Your task to perform on an android device: open app "Expedia: Hotels, Flights & Car" (install if not already installed) Image 0: 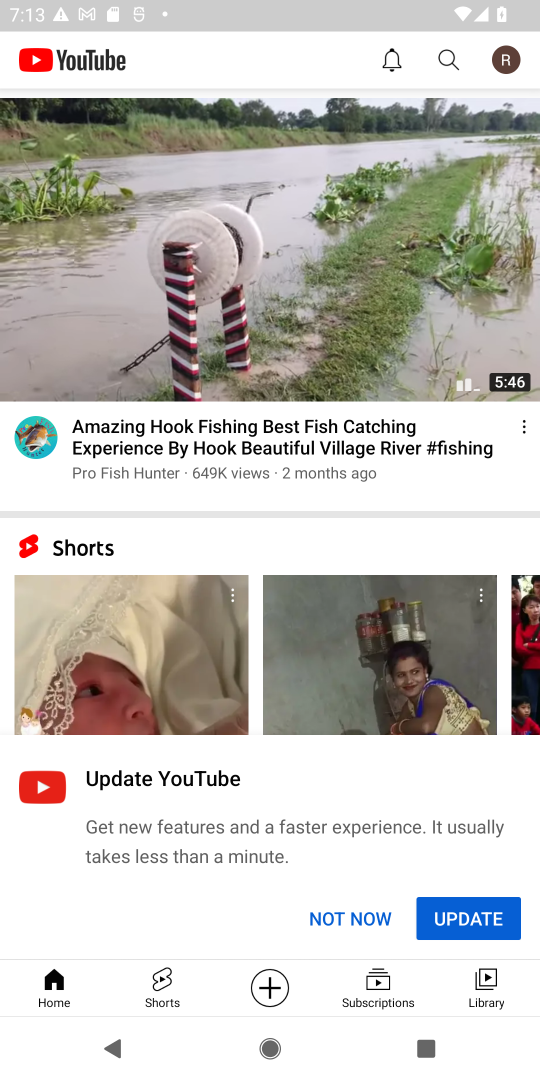
Step 0: press home button
Your task to perform on an android device: open app "Expedia: Hotels, Flights & Car" (install if not already installed) Image 1: 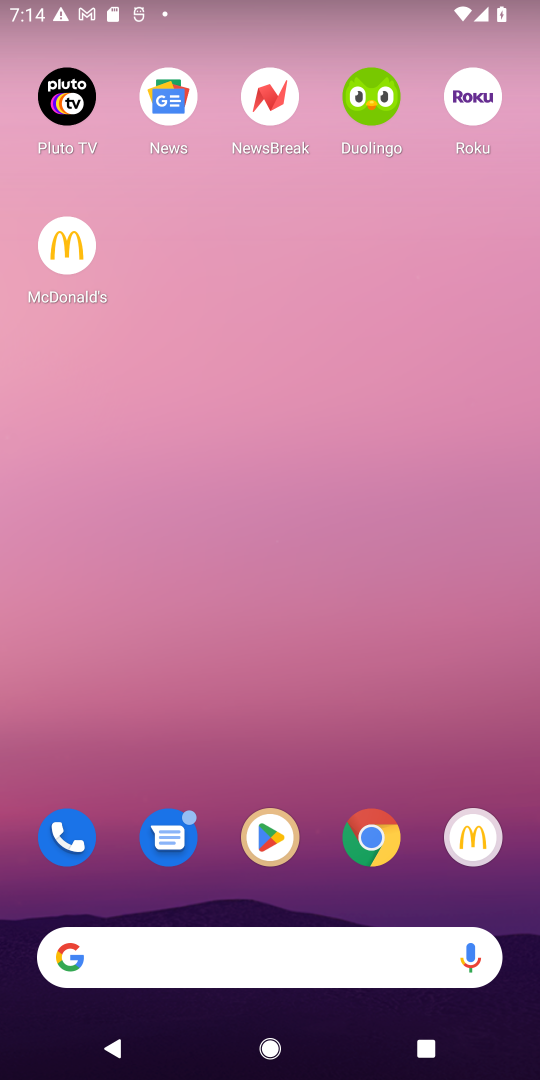
Step 1: click (259, 848)
Your task to perform on an android device: open app "Expedia: Hotels, Flights & Car" (install if not already installed) Image 2: 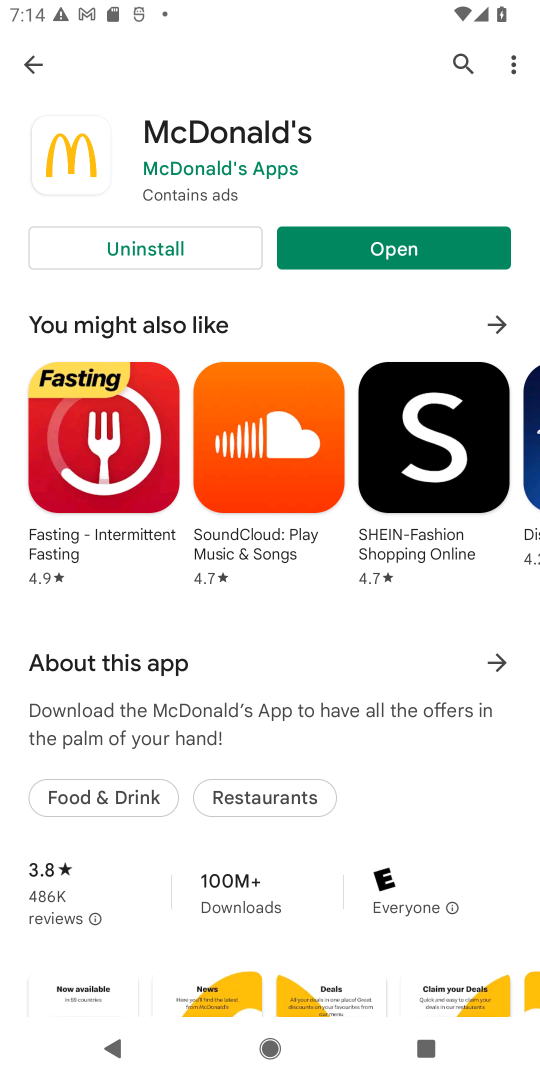
Step 2: click (45, 57)
Your task to perform on an android device: open app "Expedia: Hotels, Flights & Car" (install if not already installed) Image 3: 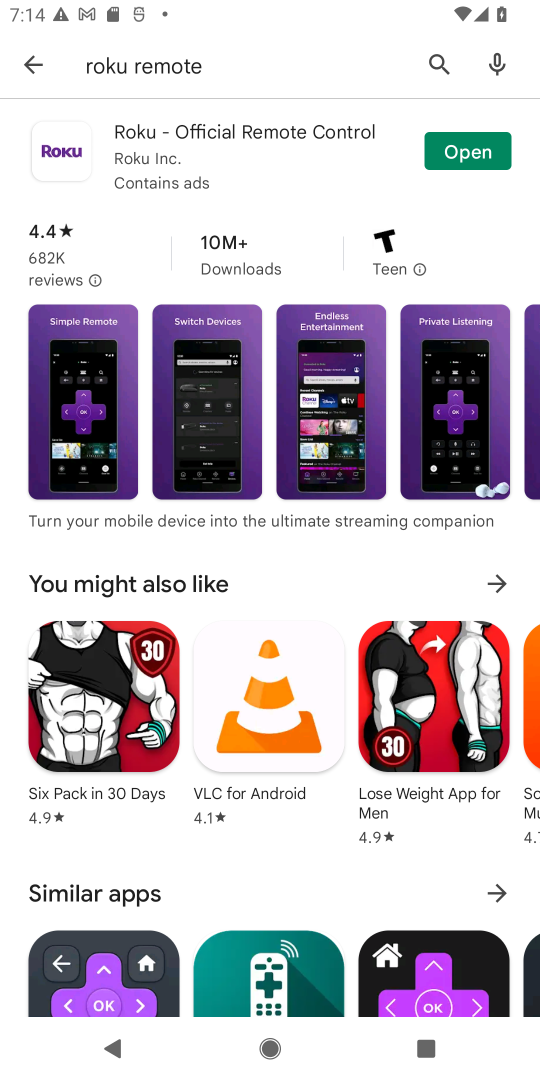
Step 3: click (214, 72)
Your task to perform on an android device: open app "Expedia: Hotels, Flights & Car" (install if not already installed) Image 4: 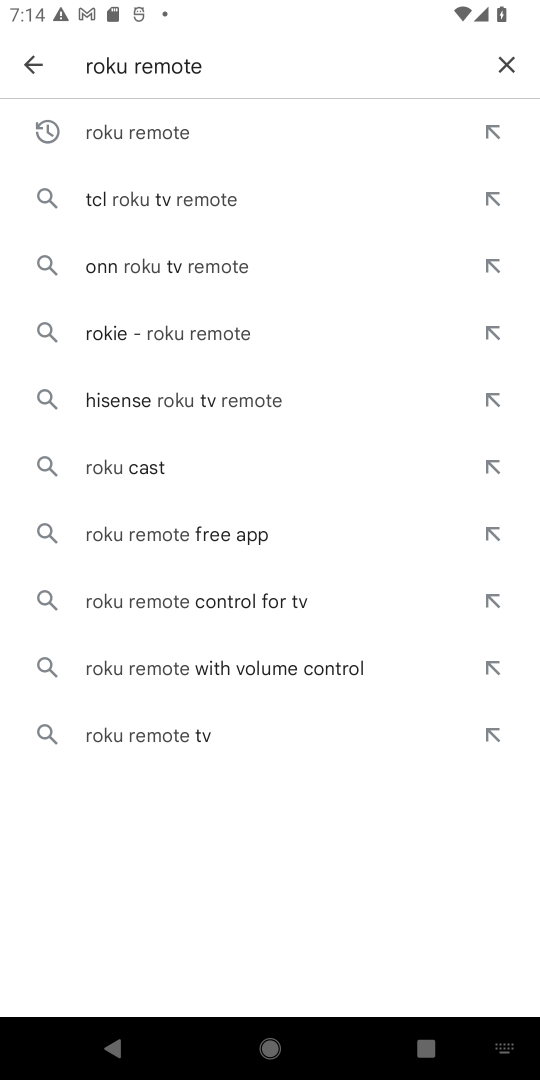
Step 4: click (501, 58)
Your task to perform on an android device: open app "Expedia: Hotels, Flights & Car" (install if not already installed) Image 5: 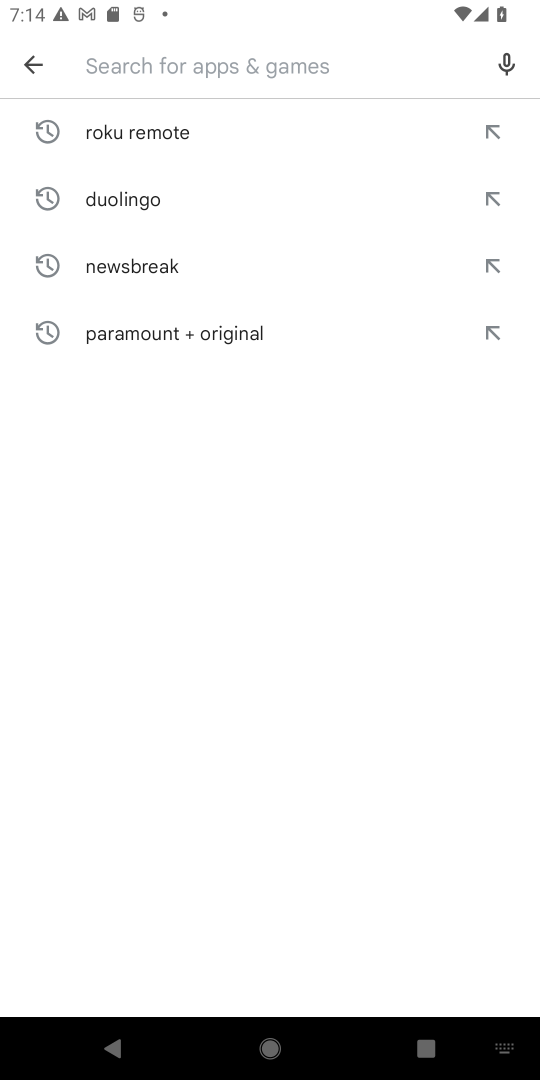
Step 5: type "Expedia"
Your task to perform on an android device: open app "Expedia: Hotels, Flights & Car" (install if not already installed) Image 6: 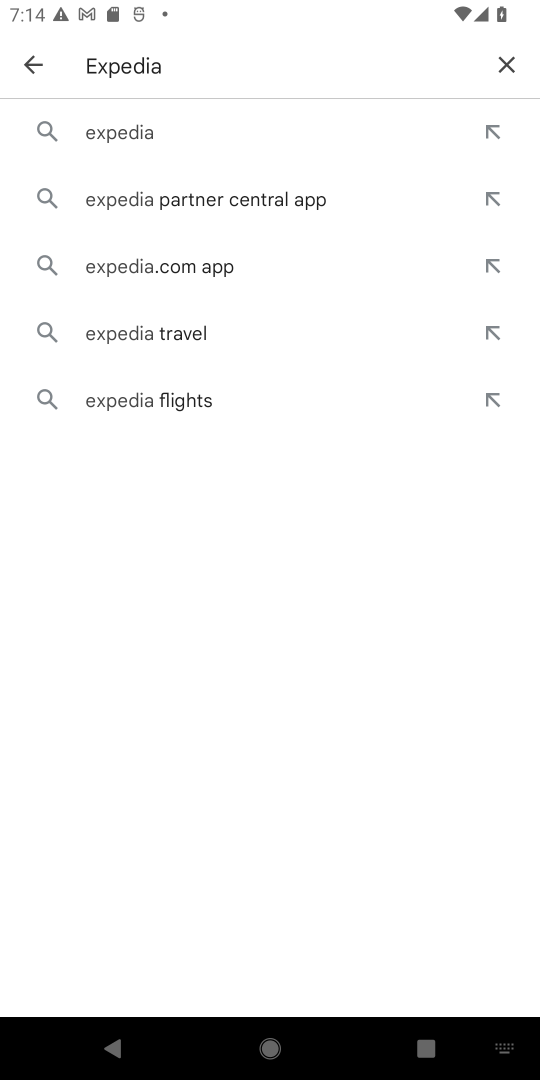
Step 6: click (171, 130)
Your task to perform on an android device: open app "Expedia: Hotels, Flights & Car" (install if not already installed) Image 7: 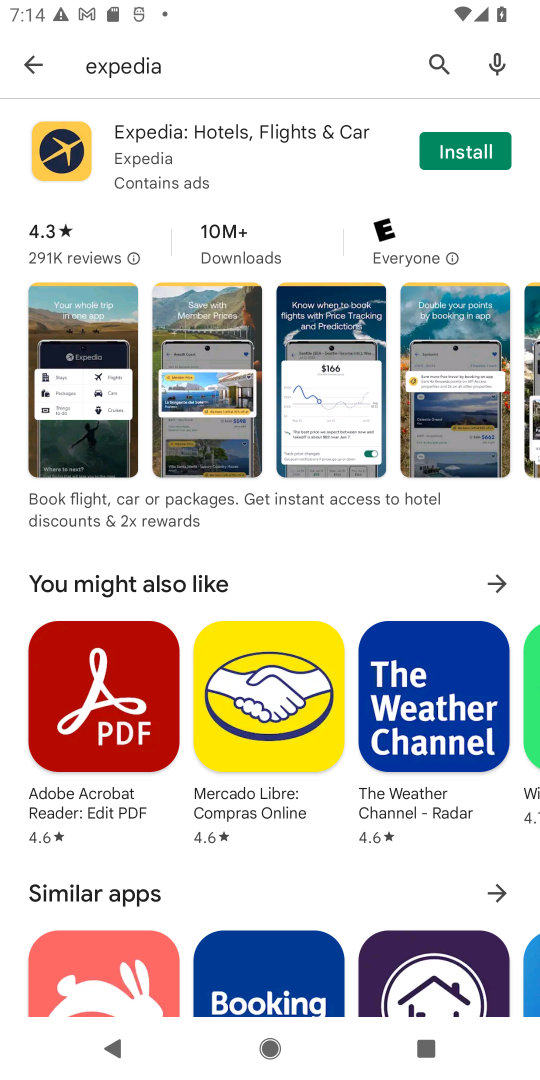
Step 7: click (473, 155)
Your task to perform on an android device: open app "Expedia: Hotels, Flights & Car" (install if not already installed) Image 8: 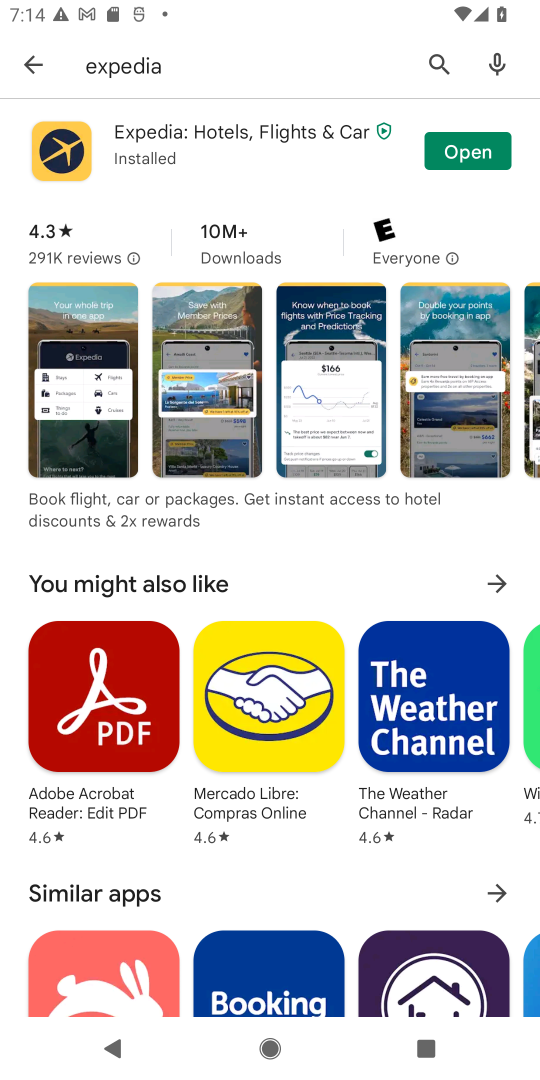
Step 8: click (464, 160)
Your task to perform on an android device: open app "Expedia: Hotels, Flights & Car" (install if not already installed) Image 9: 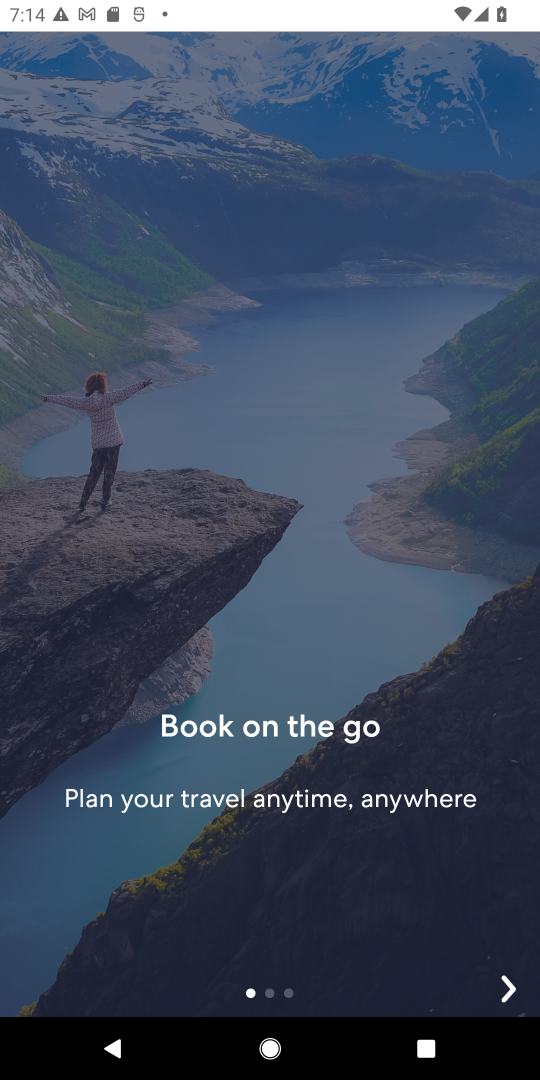
Step 9: click (507, 982)
Your task to perform on an android device: open app "Expedia: Hotels, Flights & Car" (install if not already installed) Image 10: 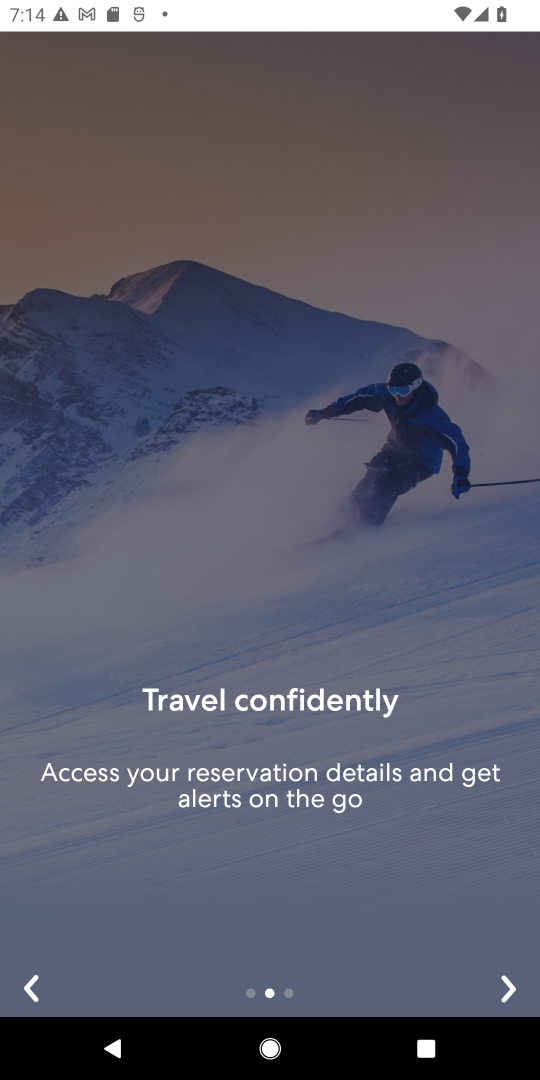
Step 10: click (500, 979)
Your task to perform on an android device: open app "Expedia: Hotels, Flights & Car" (install if not already installed) Image 11: 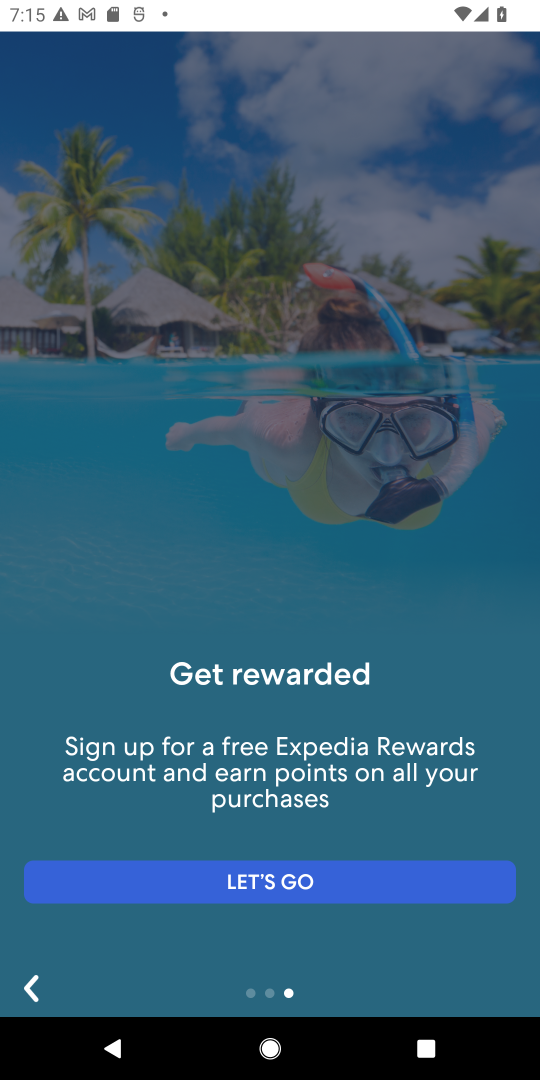
Step 11: click (356, 888)
Your task to perform on an android device: open app "Expedia: Hotels, Flights & Car" (install if not already installed) Image 12: 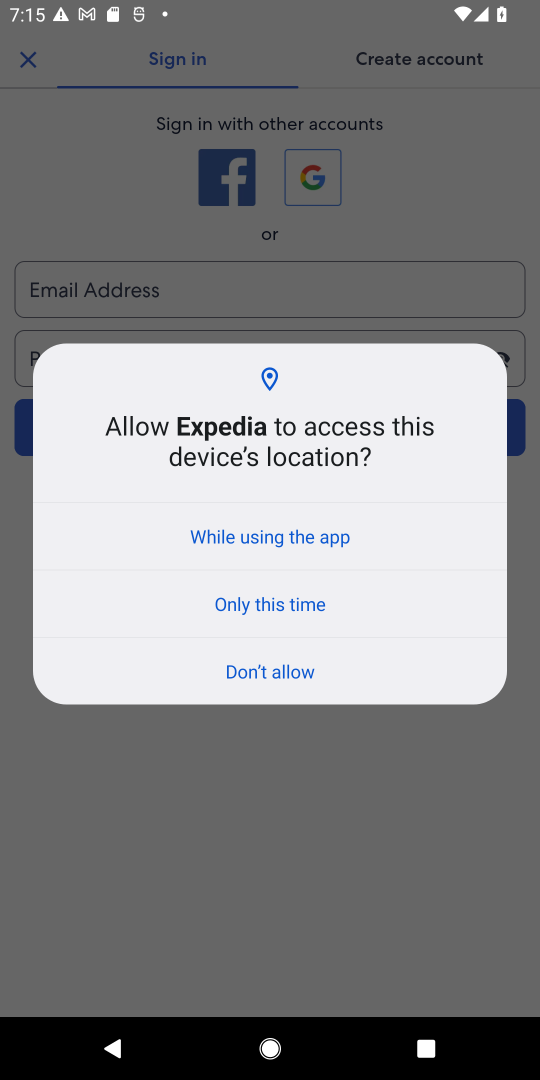
Step 12: click (274, 527)
Your task to perform on an android device: open app "Expedia: Hotels, Flights & Car" (install if not already installed) Image 13: 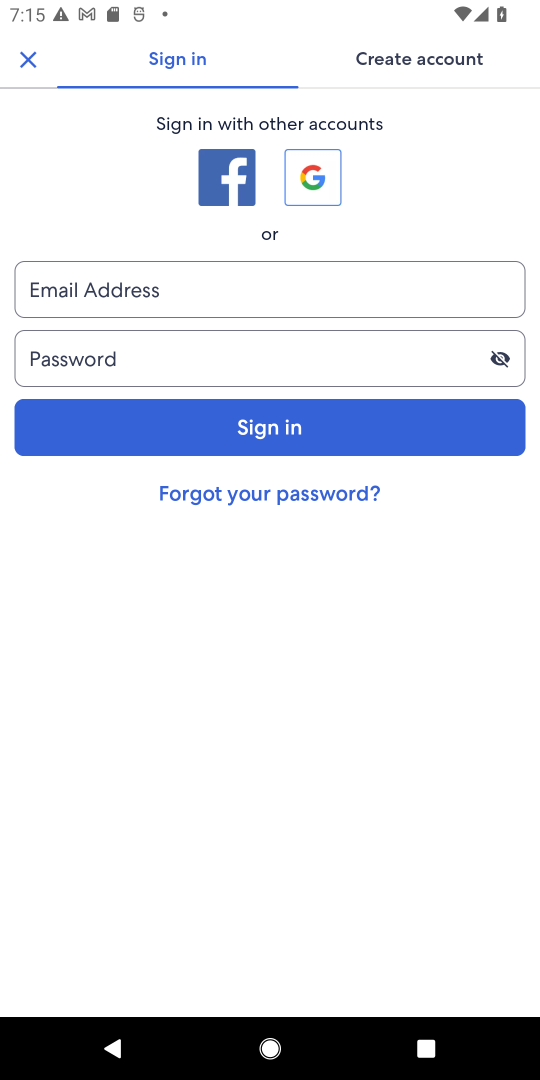
Step 13: task complete